Your task to perform on an android device: Toggle the flashlight Image 0: 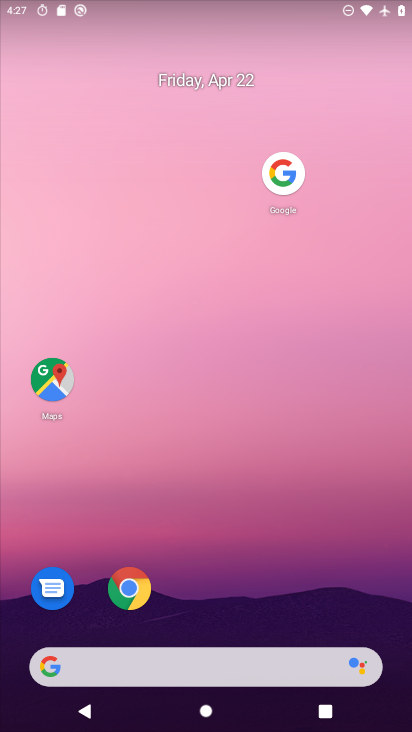
Step 0: drag from (211, 634) to (254, 19)
Your task to perform on an android device: Toggle the flashlight Image 1: 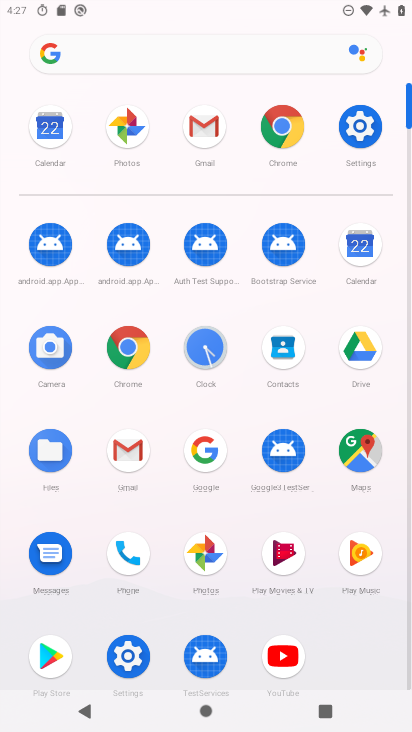
Step 1: click (363, 130)
Your task to perform on an android device: Toggle the flashlight Image 2: 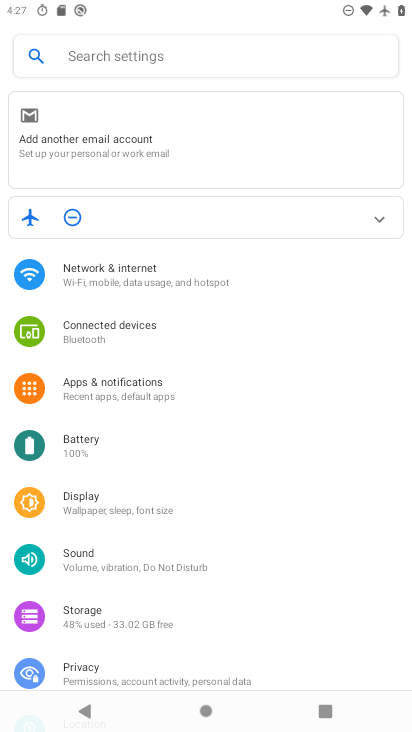
Step 2: task complete